Your task to perform on an android device: What's on my calendar today? Image 0: 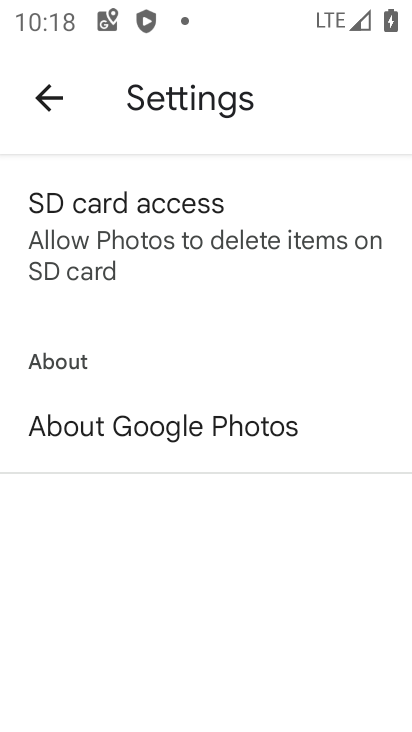
Step 0: press home button
Your task to perform on an android device: What's on my calendar today? Image 1: 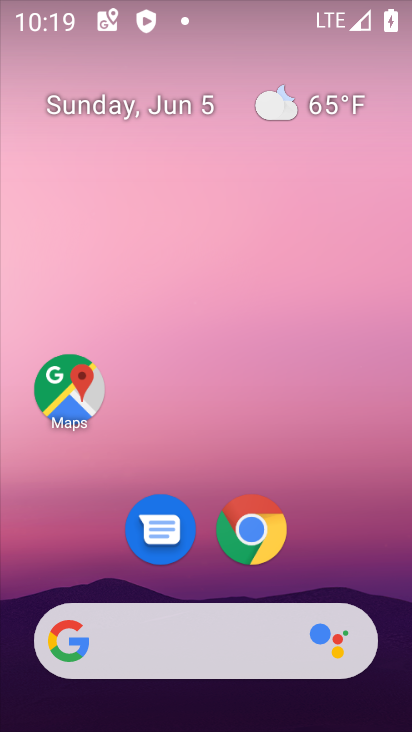
Step 1: drag from (119, 583) to (272, 28)
Your task to perform on an android device: What's on my calendar today? Image 2: 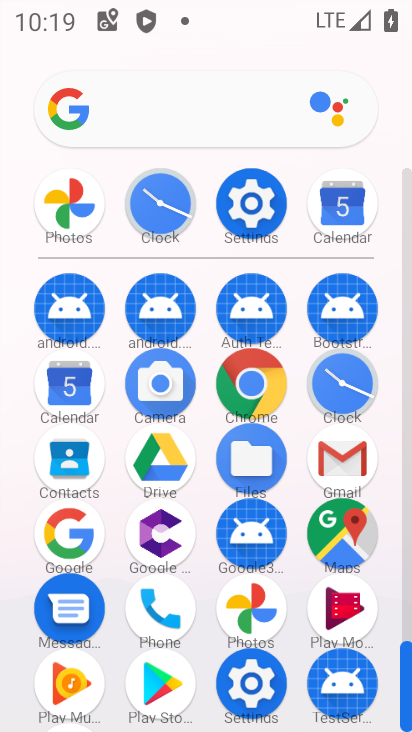
Step 2: click (343, 215)
Your task to perform on an android device: What's on my calendar today? Image 3: 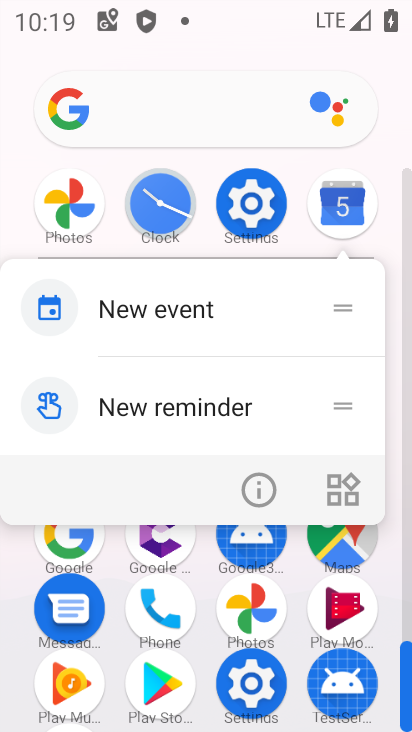
Step 3: click (348, 200)
Your task to perform on an android device: What's on my calendar today? Image 4: 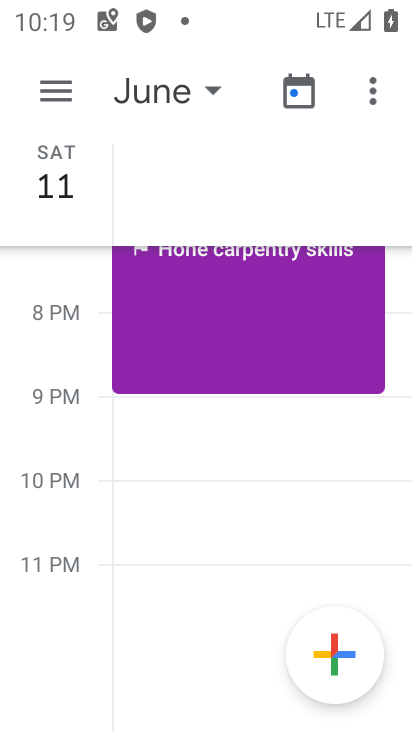
Step 4: click (140, 103)
Your task to perform on an android device: What's on my calendar today? Image 5: 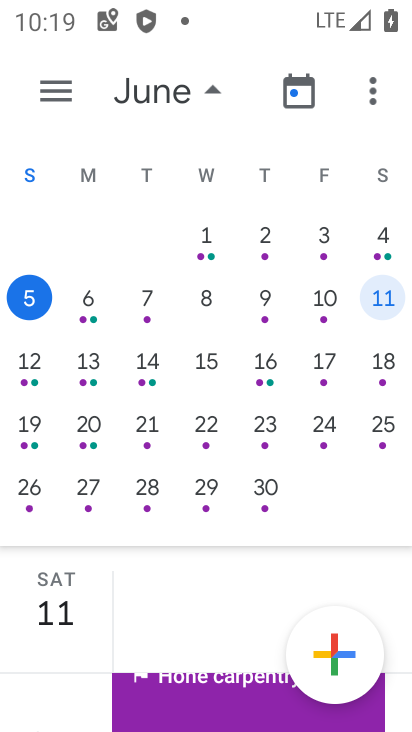
Step 5: click (47, 305)
Your task to perform on an android device: What's on my calendar today? Image 6: 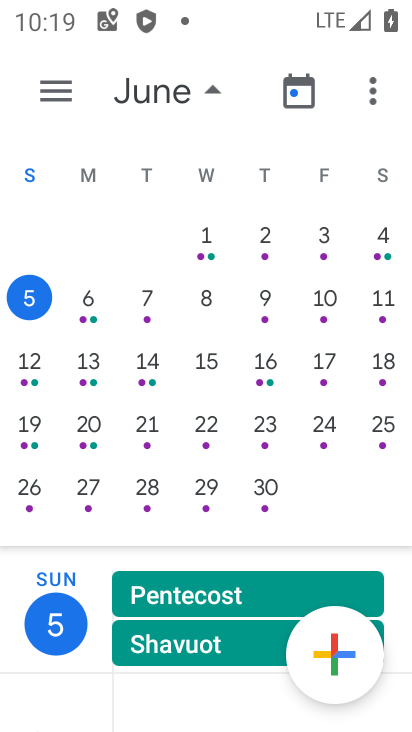
Step 6: task complete